Your task to perform on an android device: Go to settings Image 0: 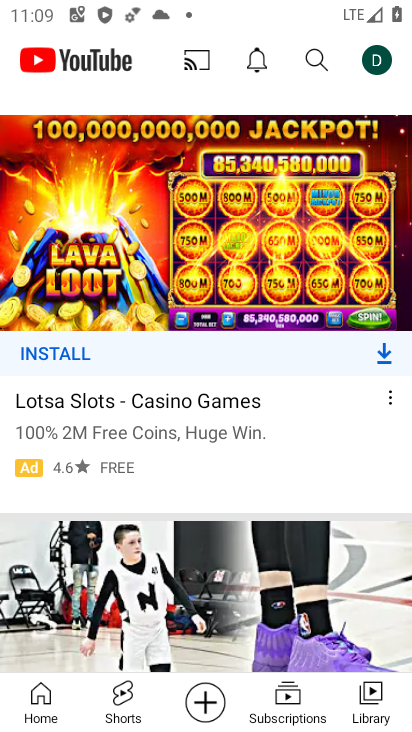
Step 0: press home button
Your task to perform on an android device: Go to settings Image 1: 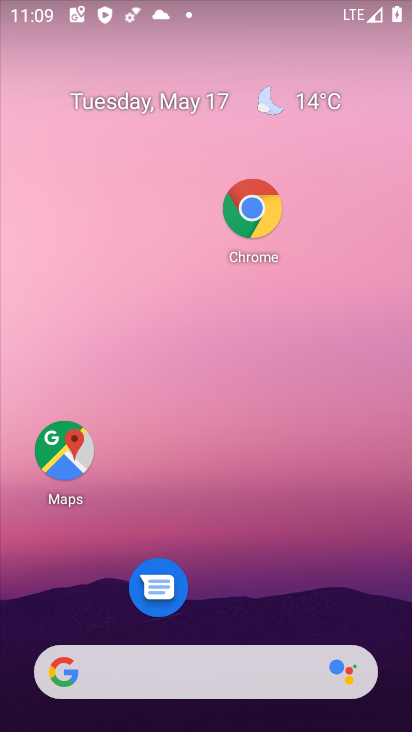
Step 1: drag from (272, 567) to (249, 59)
Your task to perform on an android device: Go to settings Image 2: 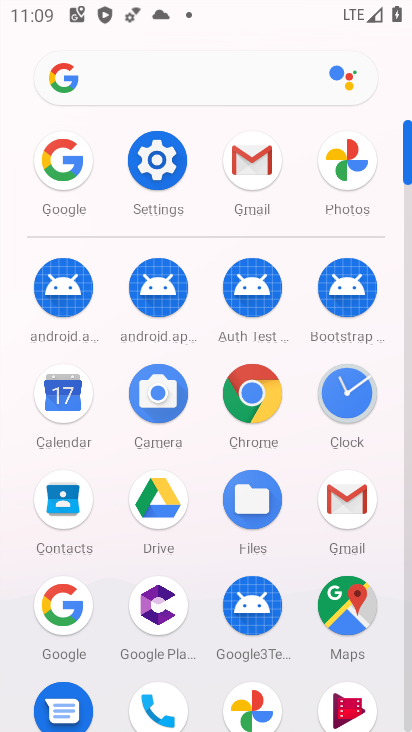
Step 2: click (154, 166)
Your task to perform on an android device: Go to settings Image 3: 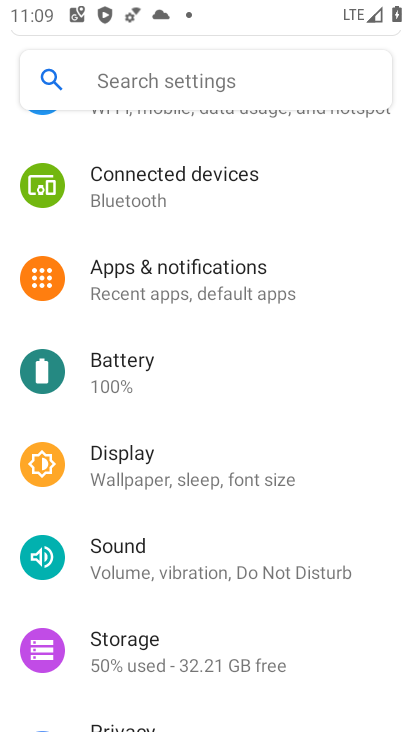
Step 3: task complete